Your task to perform on an android device: make emails show in primary in the gmail app Image 0: 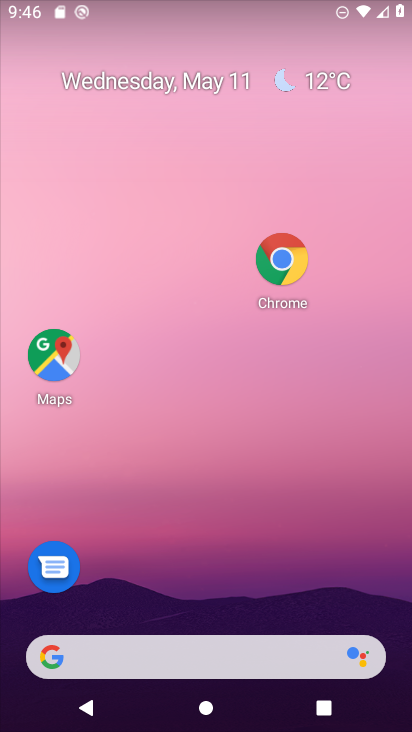
Step 0: press home button
Your task to perform on an android device: make emails show in primary in the gmail app Image 1: 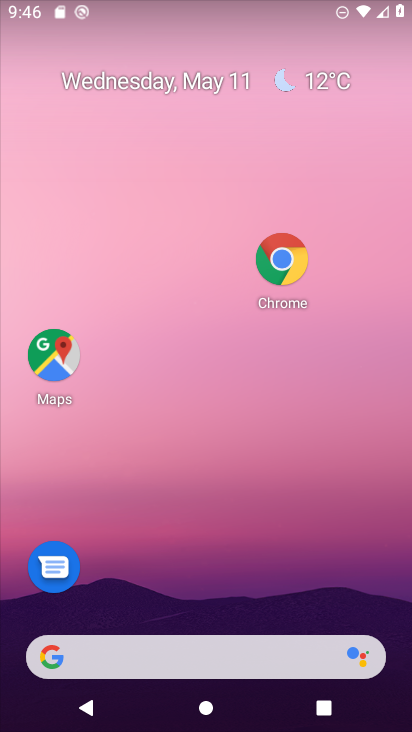
Step 1: drag from (155, 659) to (259, 228)
Your task to perform on an android device: make emails show in primary in the gmail app Image 2: 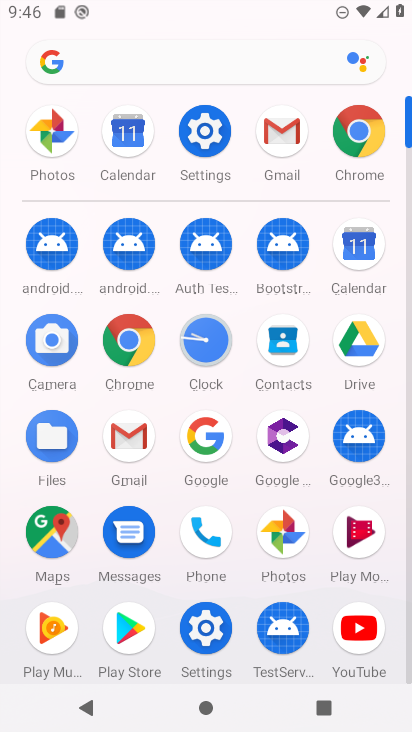
Step 2: click (281, 151)
Your task to perform on an android device: make emails show in primary in the gmail app Image 3: 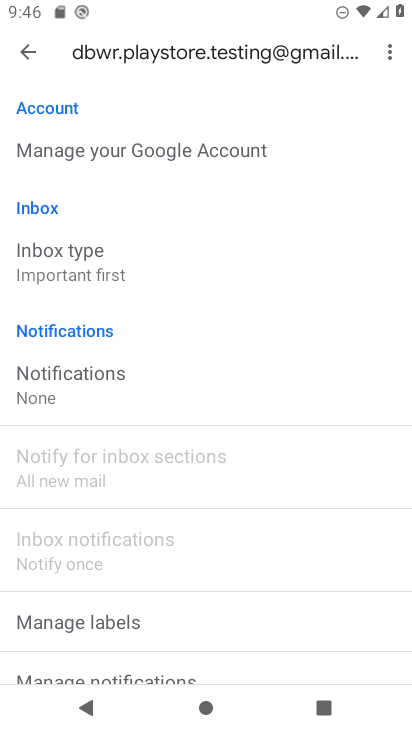
Step 3: task complete